Your task to perform on an android device: Open my contact list Image 0: 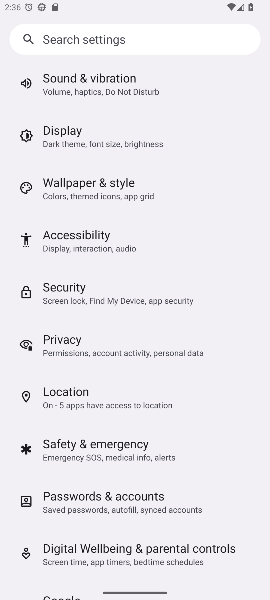
Step 0: press home button
Your task to perform on an android device: Open my contact list Image 1: 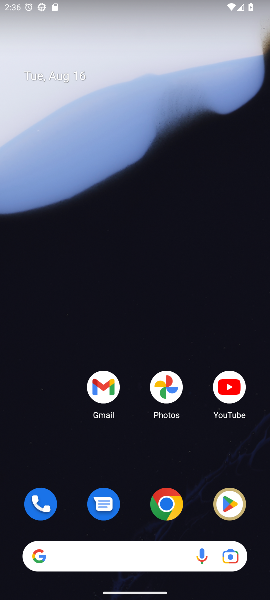
Step 1: drag from (136, 519) to (134, 105)
Your task to perform on an android device: Open my contact list Image 2: 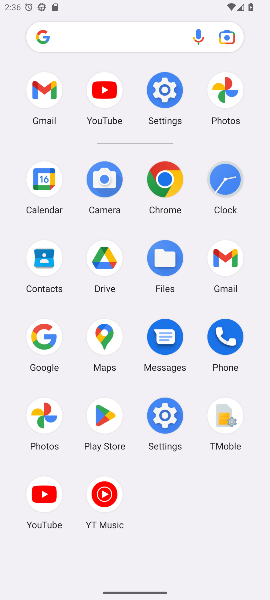
Step 2: click (43, 254)
Your task to perform on an android device: Open my contact list Image 3: 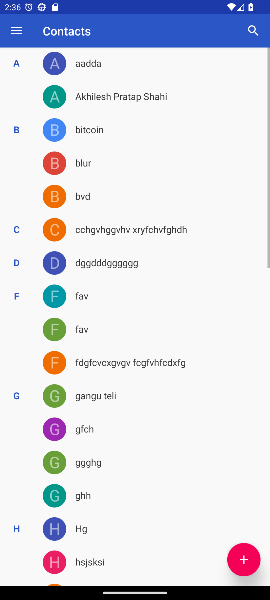
Step 3: task complete